Your task to perform on an android device: Open ESPN.com Image 0: 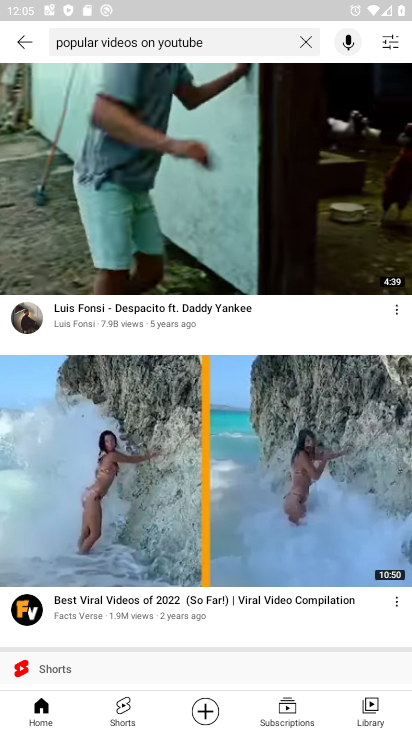
Step 0: press home button
Your task to perform on an android device: Open ESPN.com Image 1: 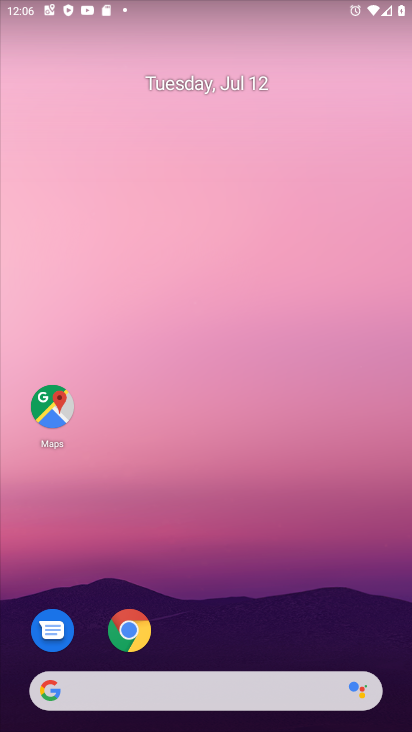
Step 1: click (131, 635)
Your task to perform on an android device: Open ESPN.com Image 2: 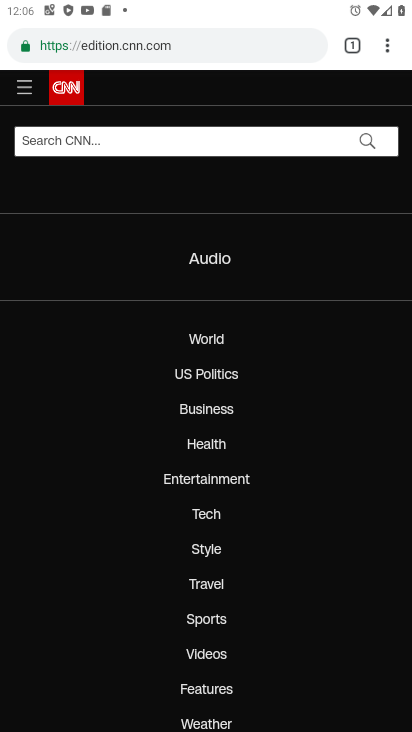
Step 2: click (264, 58)
Your task to perform on an android device: Open ESPN.com Image 3: 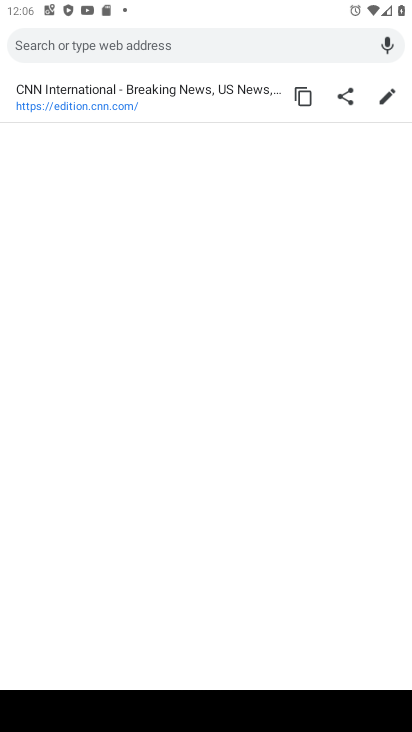
Step 3: type "ESPN.com"
Your task to perform on an android device: Open ESPN.com Image 4: 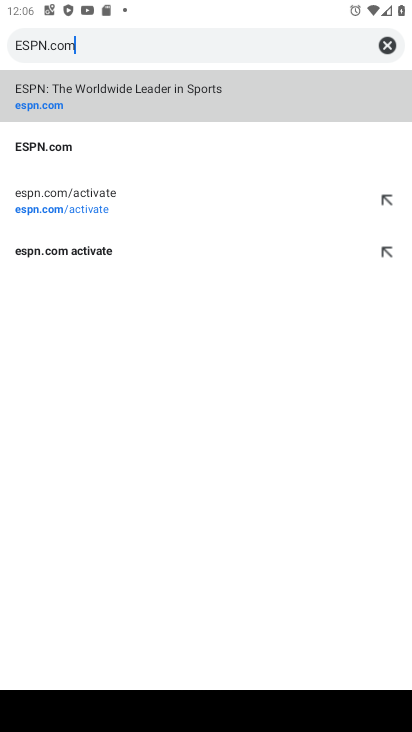
Step 4: click (60, 152)
Your task to perform on an android device: Open ESPN.com Image 5: 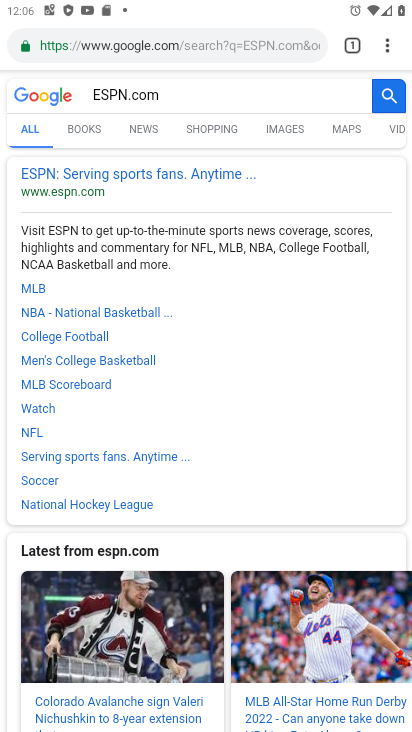
Step 5: click (74, 191)
Your task to perform on an android device: Open ESPN.com Image 6: 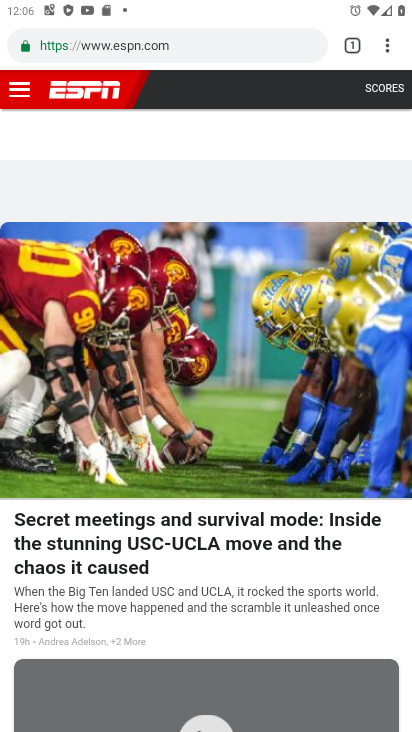
Step 6: task complete